Your task to perform on an android device: Do I have any events today? Image 0: 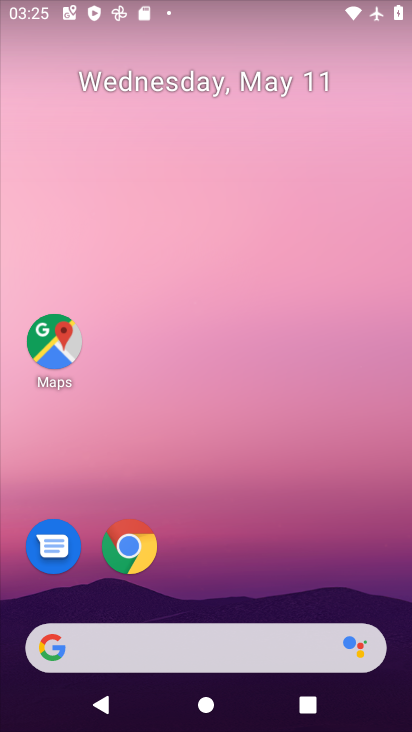
Step 0: drag from (193, 588) to (257, 71)
Your task to perform on an android device: Do I have any events today? Image 1: 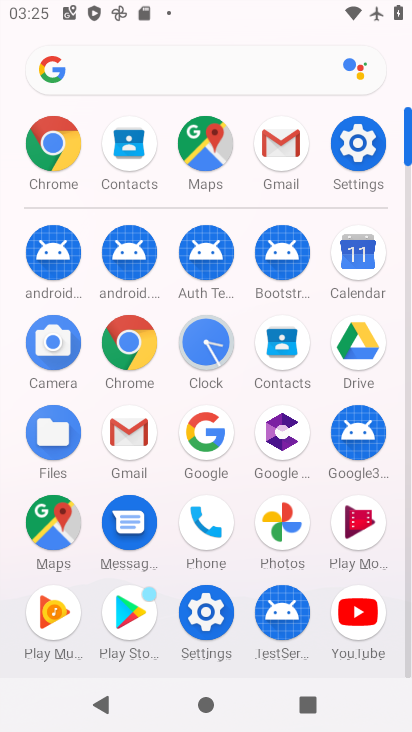
Step 1: click (371, 252)
Your task to perform on an android device: Do I have any events today? Image 2: 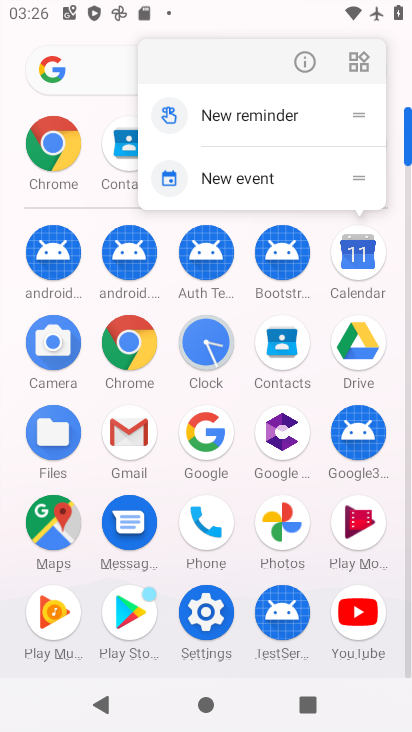
Step 2: click (311, 64)
Your task to perform on an android device: Do I have any events today? Image 3: 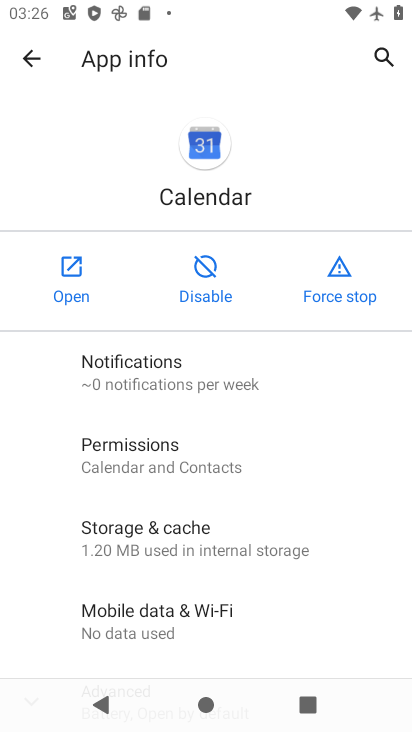
Step 3: click (84, 266)
Your task to perform on an android device: Do I have any events today? Image 4: 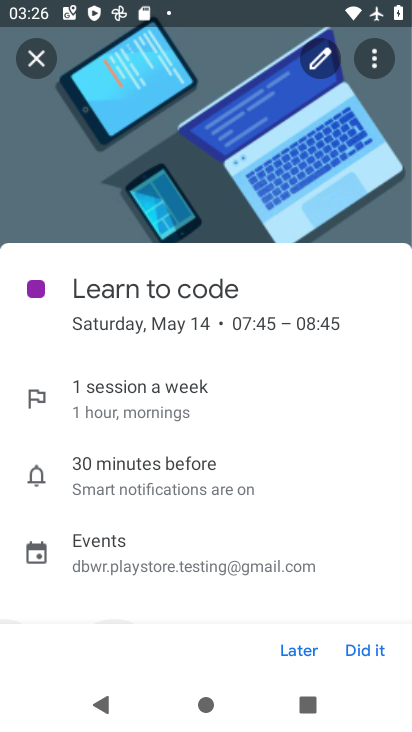
Step 4: drag from (202, 489) to (260, 209)
Your task to perform on an android device: Do I have any events today? Image 5: 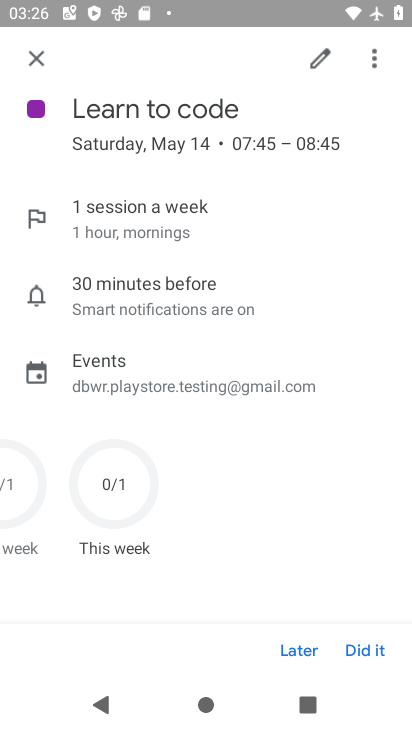
Step 5: click (363, 645)
Your task to perform on an android device: Do I have any events today? Image 6: 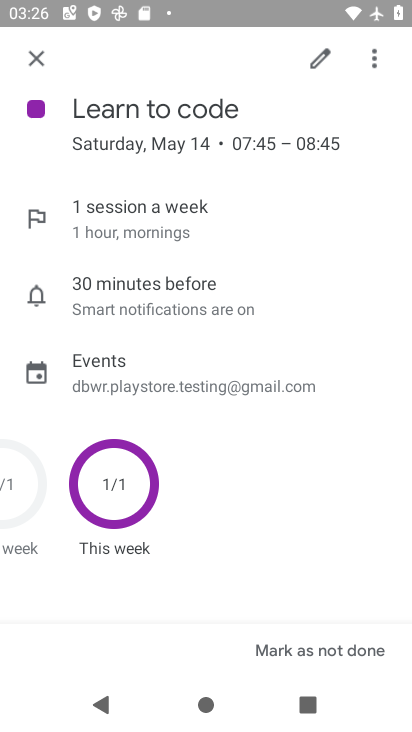
Step 6: click (35, 64)
Your task to perform on an android device: Do I have any events today? Image 7: 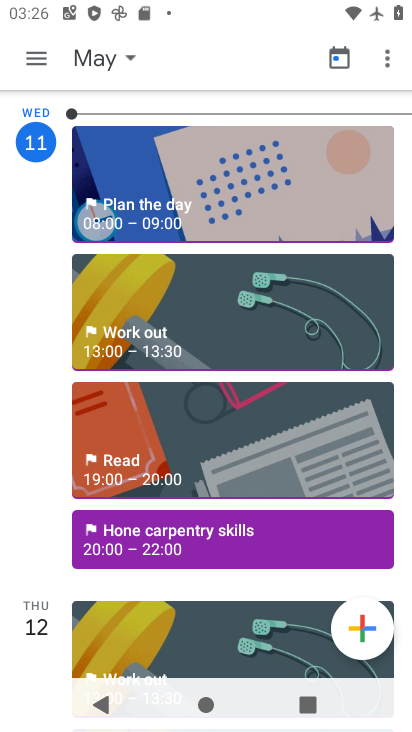
Step 7: task complete